Your task to perform on an android device: Open sound settings Image 0: 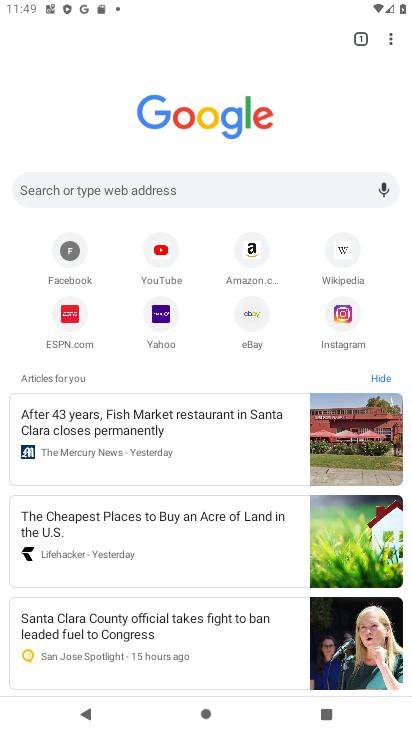
Step 0: press home button
Your task to perform on an android device: Open sound settings Image 1: 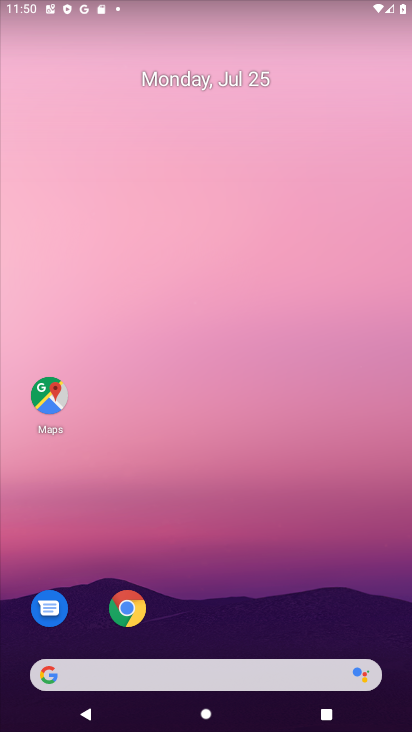
Step 1: drag from (212, 651) to (205, 74)
Your task to perform on an android device: Open sound settings Image 2: 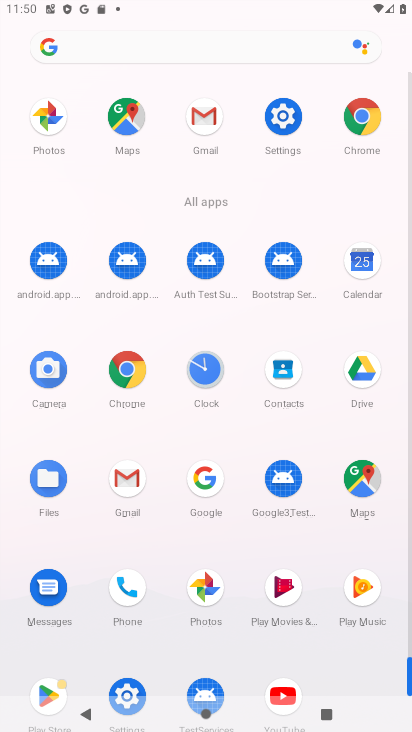
Step 2: click (276, 122)
Your task to perform on an android device: Open sound settings Image 3: 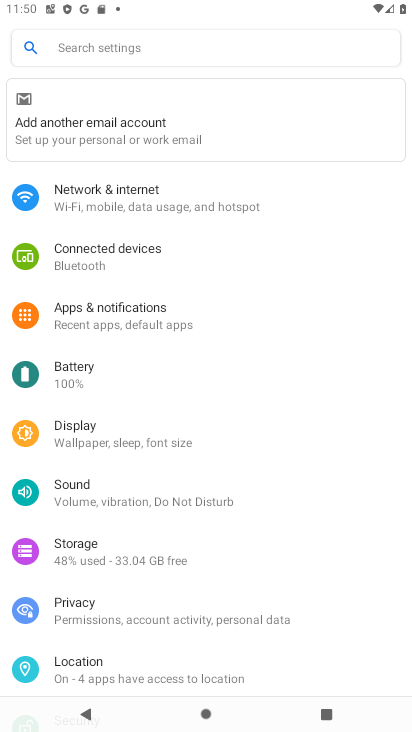
Step 3: click (95, 495)
Your task to perform on an android device: Open sound settings Image 4: 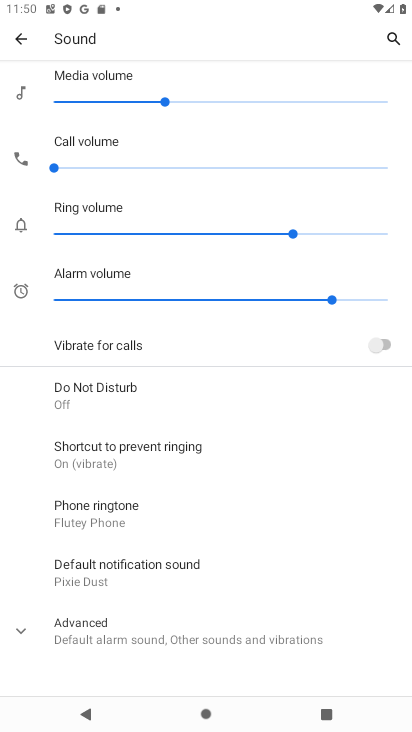
Step 4: click (76, 626)
Your task to perform on an android device: Open sound settings Image 5: 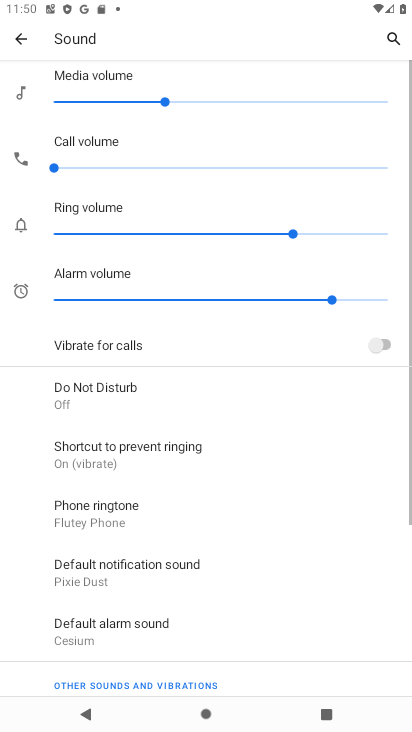
Step 5: task complete